Your task to perform on an android device: Show me popular games on the Play Store Image 0: 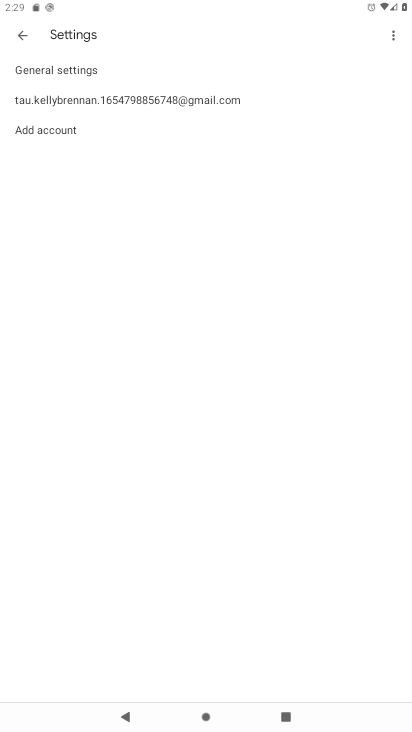
Step 0: press home button
Your task to perform on an android device: Show me popular games on the Play Store Image 1: 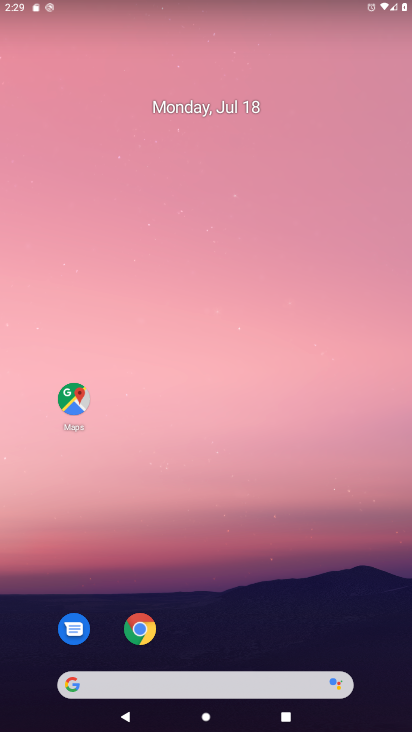
Step 1: drag from (180, 625) to (180, 18)
Your task to perform on an android device: Show me popular games on the Play Store Image 2: 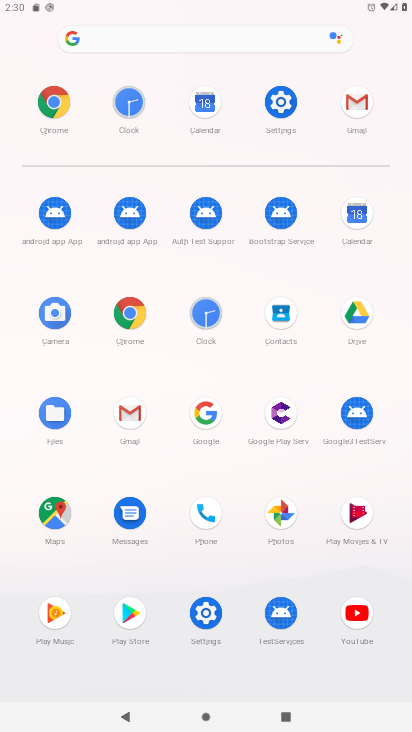
Step 2: click (128, 605)
Your task to perform on an android device: Show me popular games on the Play Store Image 3: 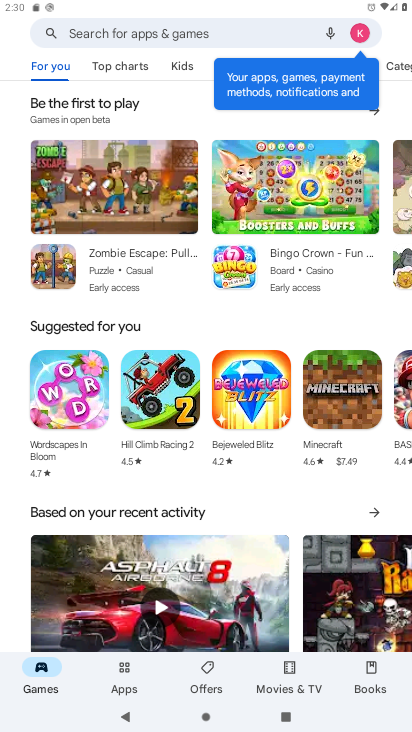
Step 3: task complete